Your task to perform on an android device: Open Wikipedia Image 0: 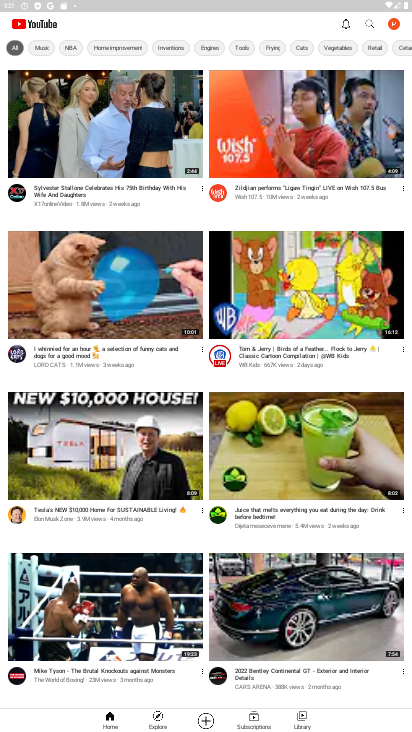
Step 0: press home button
Your task to perform on an android device: Open Wikipedia Image 1: 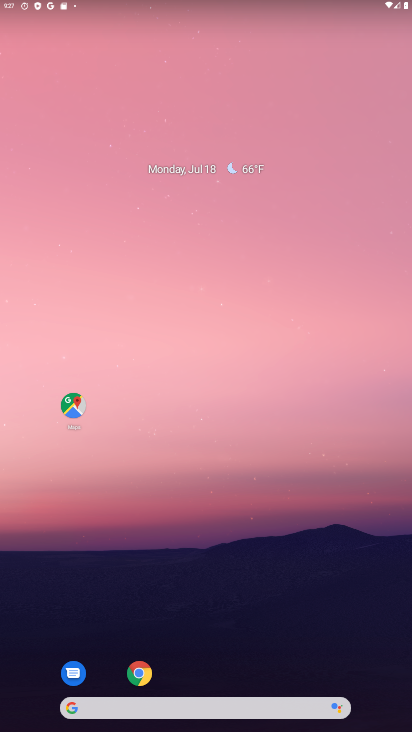
Step 1: click (139, 673)
Your task to perform on an android device: Open Wikipedia Image 2: 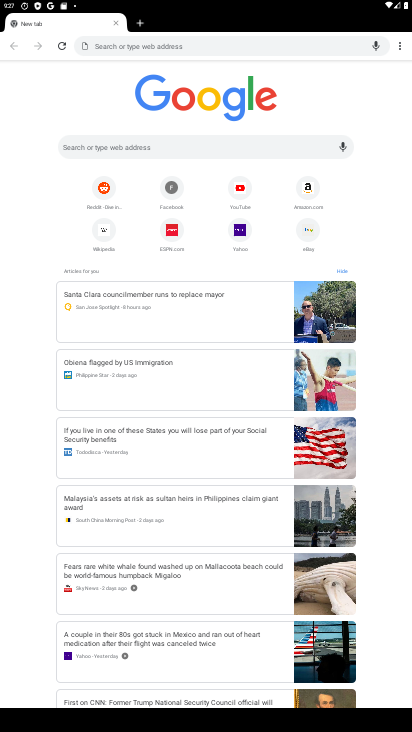
Step 2: click (104, 233)
Your task to perform on an android device: Open Wikipedia Image 3: 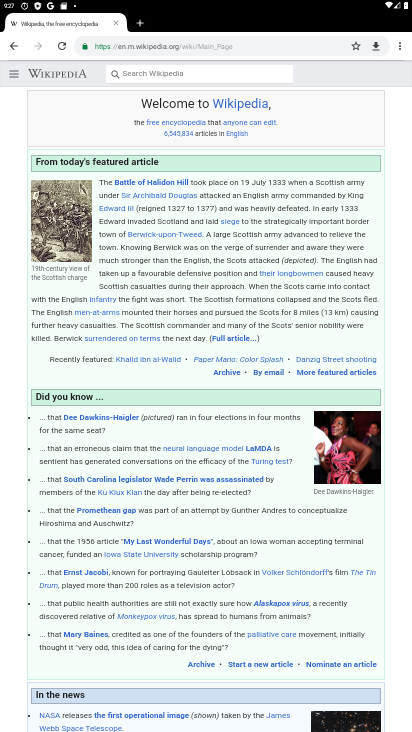
Step 3: task complete